Your task to perform on an android device: turn on wifi Image 0: 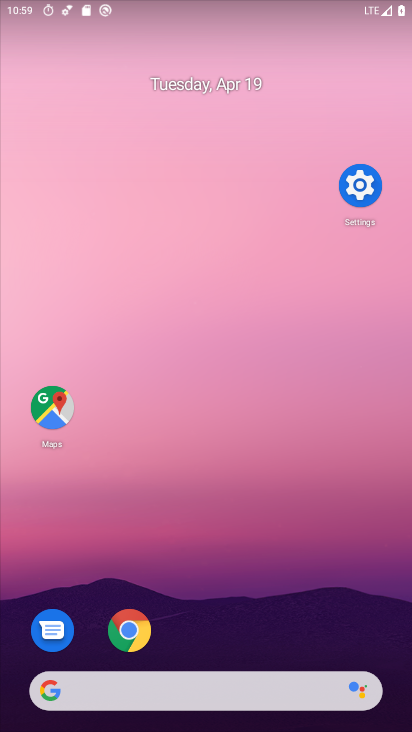
Step 0: drag from (295, 501) to (322, 151)
Your task to perform on an android device: turn on wifi Image 1: 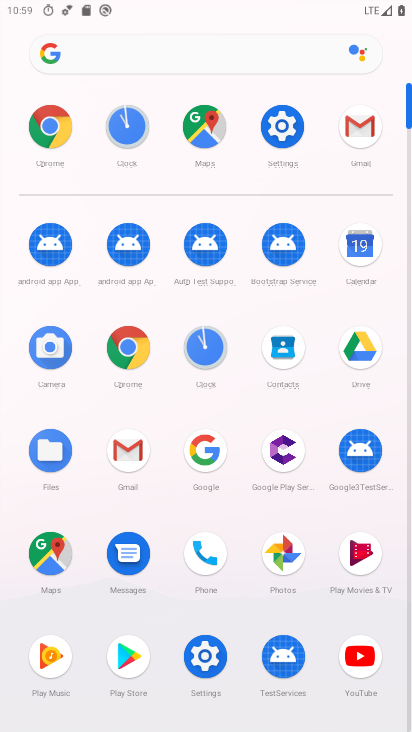
Step 1: click (267, 131)
Your task to perform on an android device: turn on wifi Image 2: 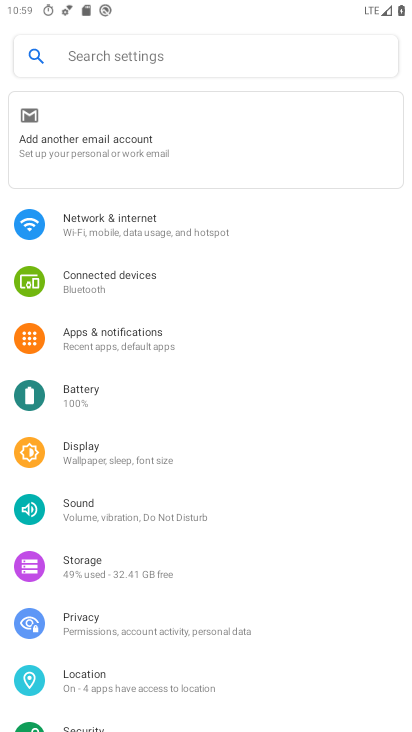
Step 2: click (195, 221)
Your task to perform on an android device: turn on wifi Image 3: 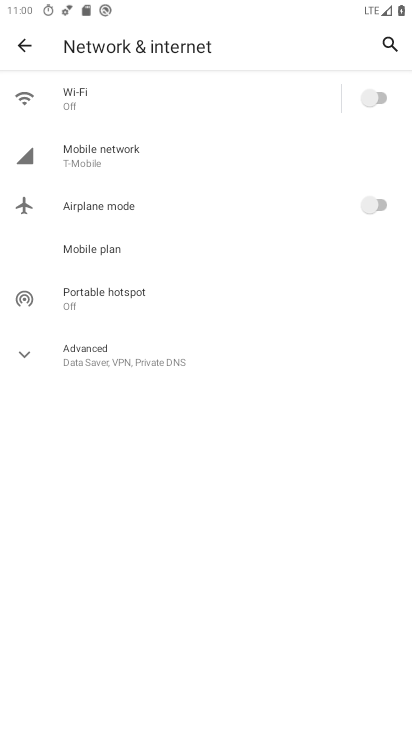
Step 3: click (385, 101)
Your task to perform on an android device: turn on wifi Image 4: 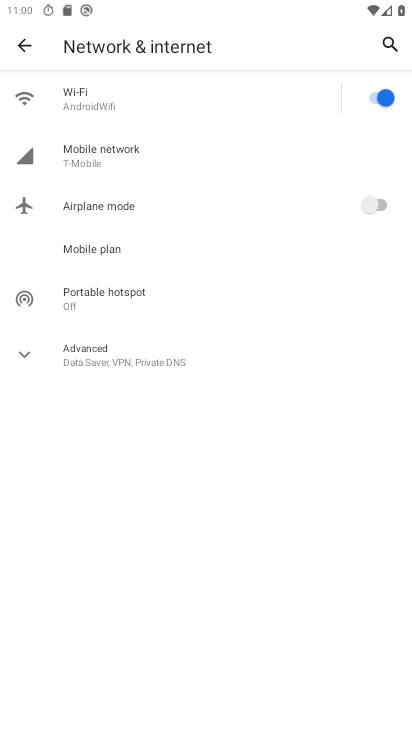
Step 4: task complete